Your task to perform on an android device: turn off notifications settings in the gmail app Image 0: 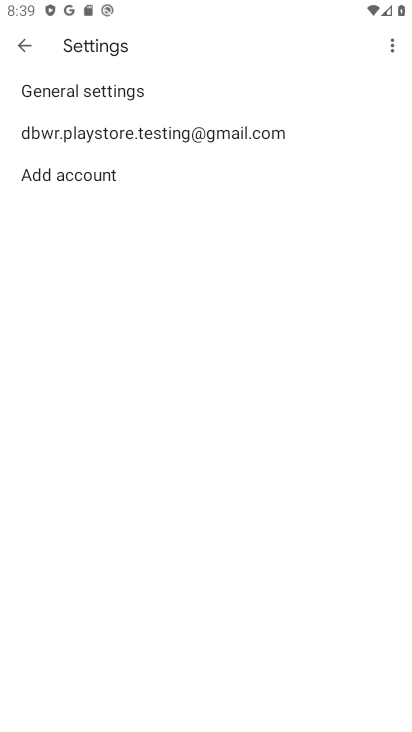
Step 0: press home button
Your task to perform on an android device: turn off notifications settings in the gmail app Image 1: 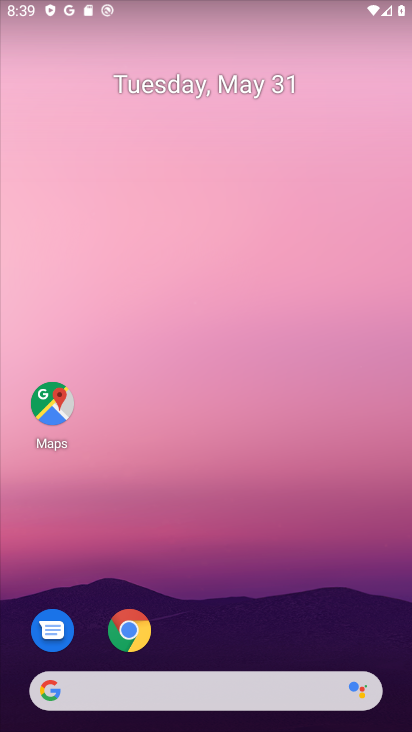
Step 1: drag from (200, 496) to (212, 142)
Your task to perform on an android device: turn off notifications settings in the gmail app Image 2: 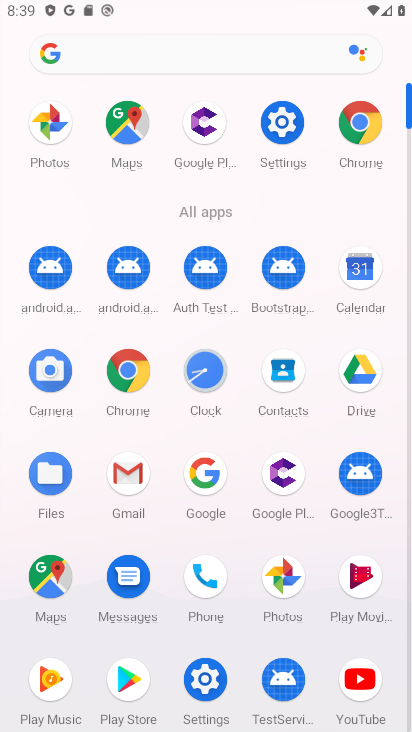
Step 2: click (133, 480)
Your task to perform on an android device: turn off notifications settings in the gmail app Image 3: 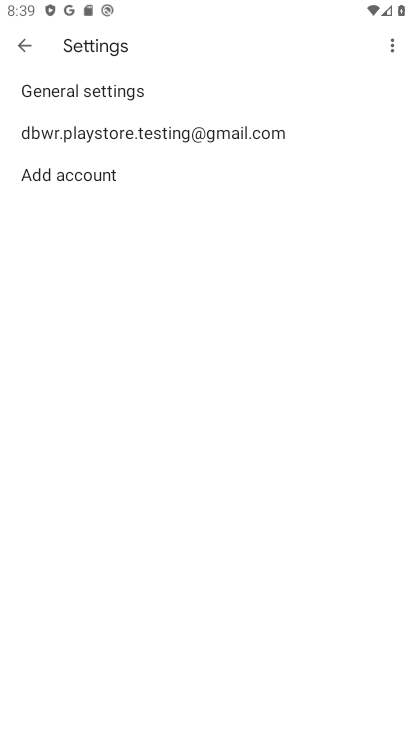
Step 3: click (146, 142)
Your task to perform on an android device: turn off notifications settings in the gmail app Image 4: 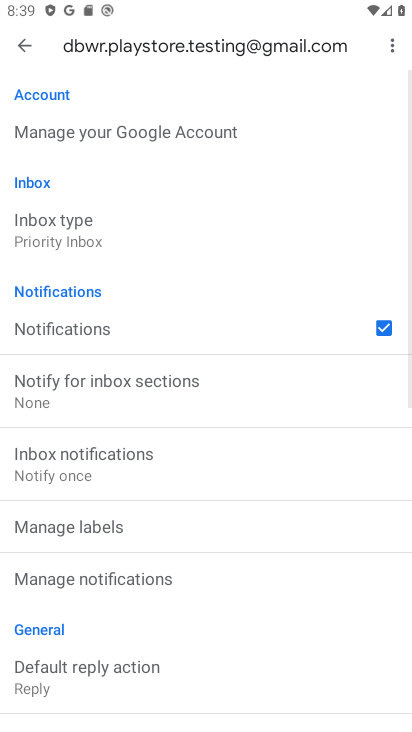
Step 4: click (120, 336)
Your task to perform on an android device: turn off notifications settings in the gmail app Image 5: 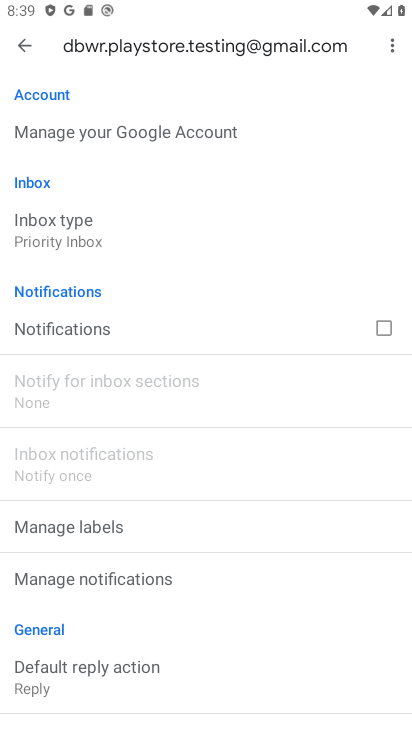
Step 5: click (119, 329)
Your task to perform on an android device: turn off notifications settings in the gmail app Image 6: 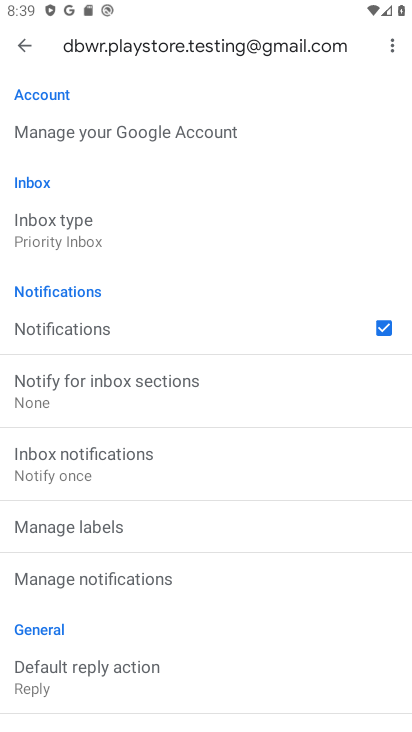
Step 6: click (382, 331)
Your task to perform on an android device: turn off notifications settings in the gmail app Image 7: 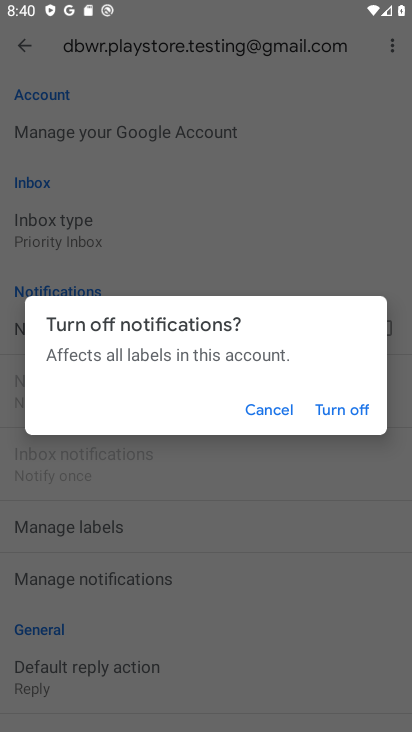
Step 7: click (333, 411)
Your task to perform on an android device: turn off notifications settings in the gmail app Image 8: 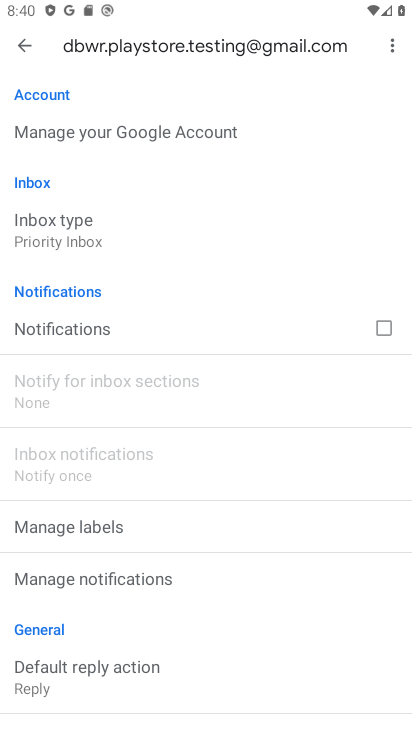
Step 8: task complete